Your task to perform on an android device: toggle translation in the chrome app Image 0: 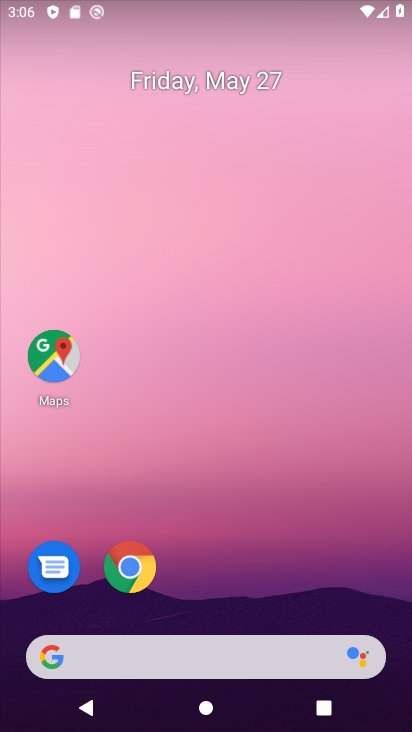
Step 0: click (133, 564)
Your task to perform on an android device: toggle translation in the chrome app Image 1: 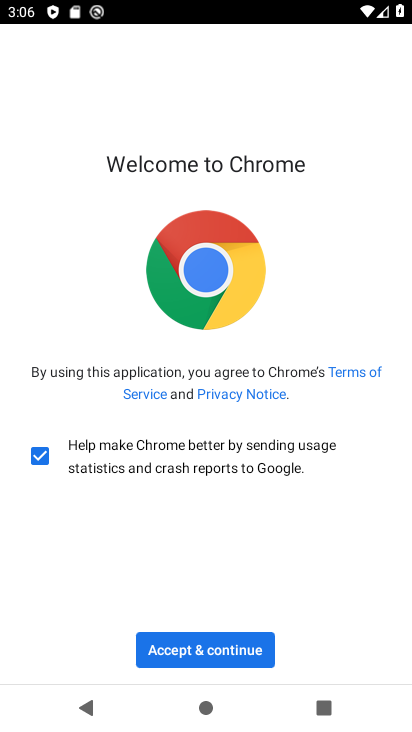
Step 1: click (214, 650)
Your task to perform on an android device: toggle translation in the chrome app Image 2: 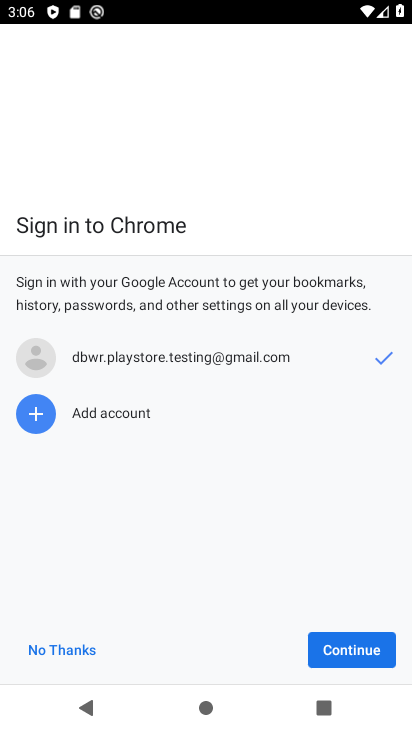
Step 2: click (368, 648)
Your task to perform on an android device: toggle translation in the chrome app Image 3: 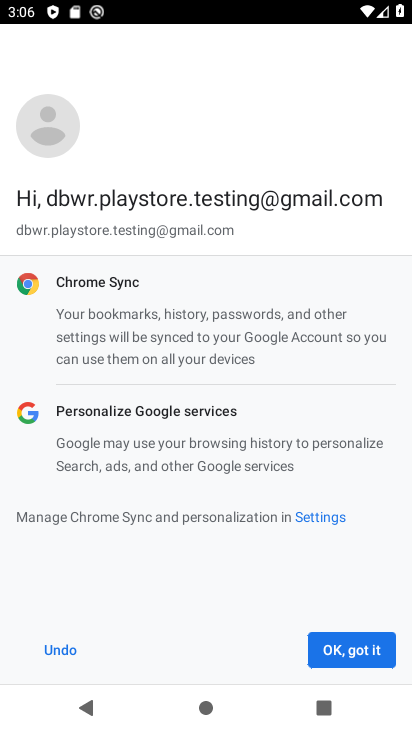
Step 3: click (368, 648)
Your task to perform on an android device: toggle translation in the chrome app Image 4: 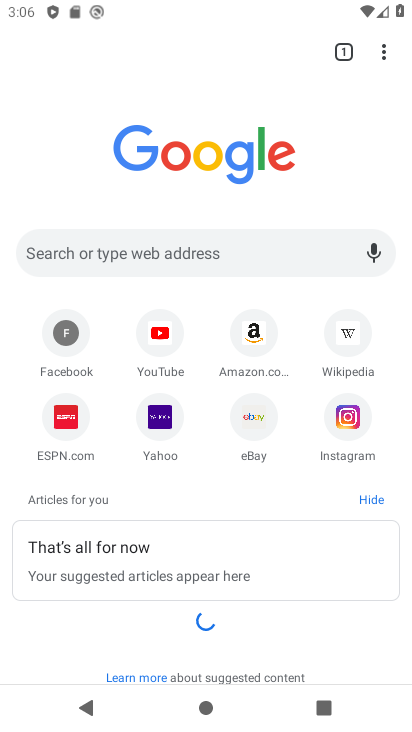
Step 4: click (384, 58)
Your task to perform on an android device: toggle translation in the chrome app Image 5: 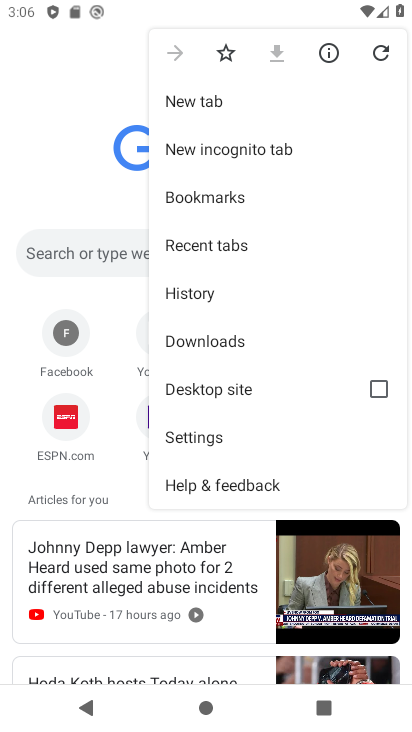
Step 5: click (194, 449)
Your task to perform on an android device: toggle translation in the chrome app Image 6: 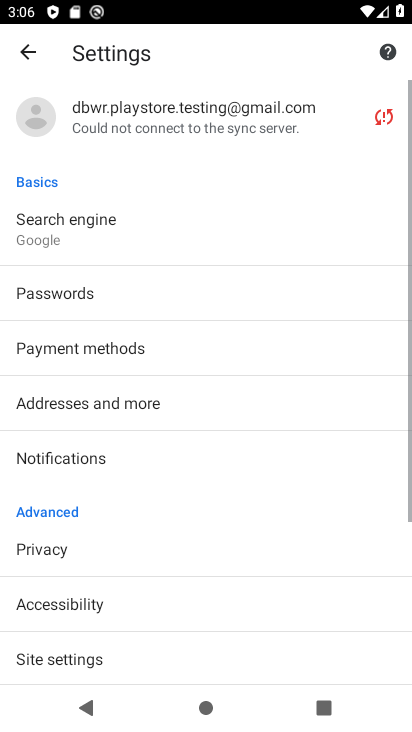
Step 6: drag from (201, 604) to (183, 267)
Your task to perform on an android device: toggle translation in the chrome app Image 7: 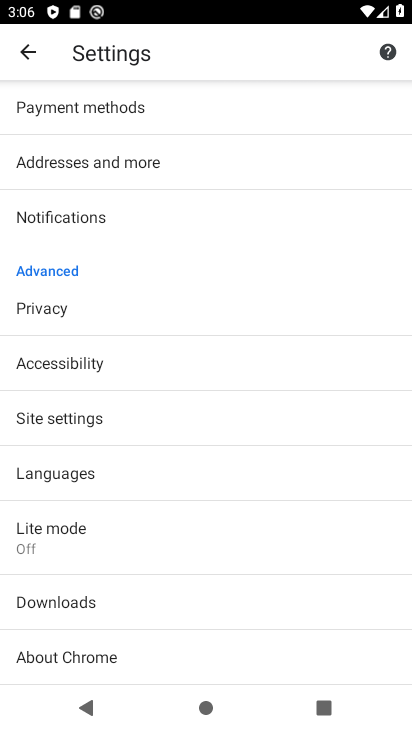
Step 7: click (69, 476)
Your task to perform on an android device: toggle translation in the chrome app Image 8: 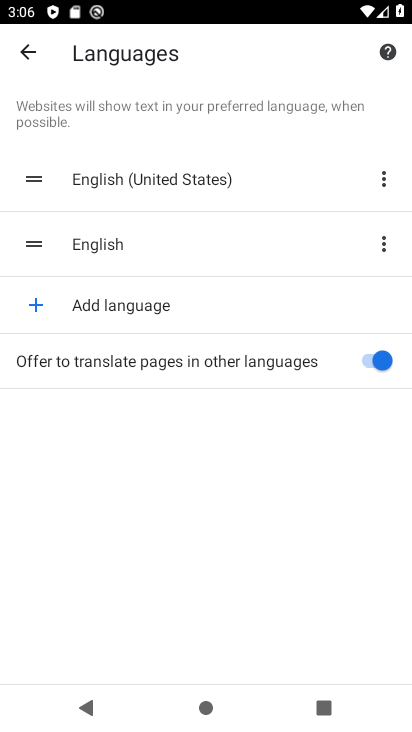
Step 8: click (366, 355)
Your task to perform on an android device: toggle translation in the chrome app Image 9: 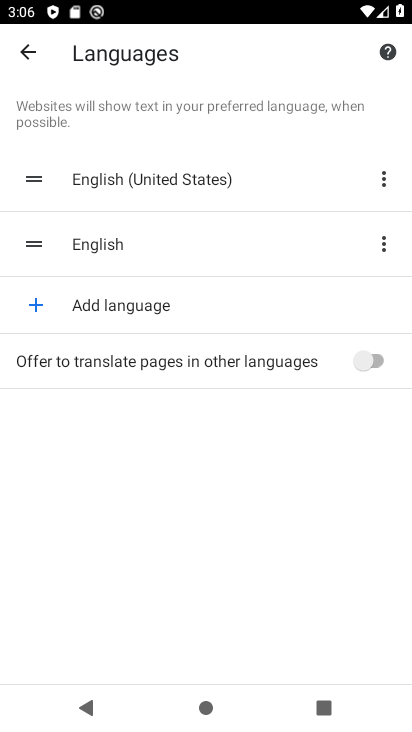
Step 9: task complete